Your task to perform on an android device: open a new tab in the chrome app Image 0: 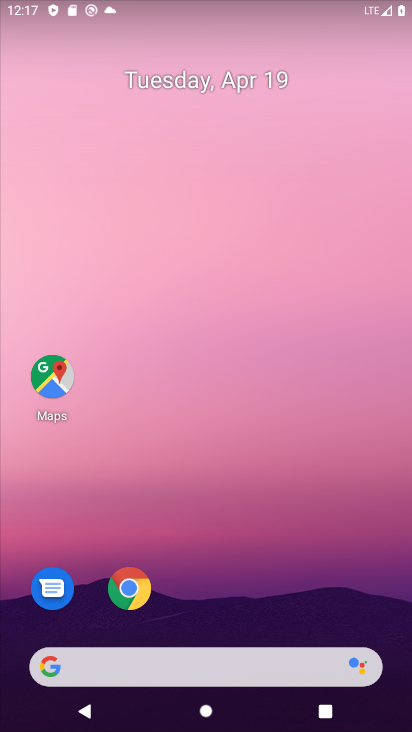
Step 0: drag from (378, 587) to (369, 78)
Your task to perform on an android device: open a new tab in the chrome app Image 1: 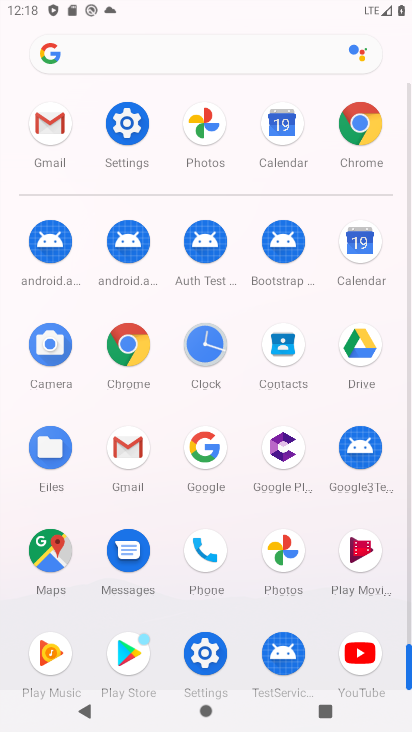
Step 1: click (361, 134)
Your task to perform on an android device: open a new tab in the chrome app Image 2: 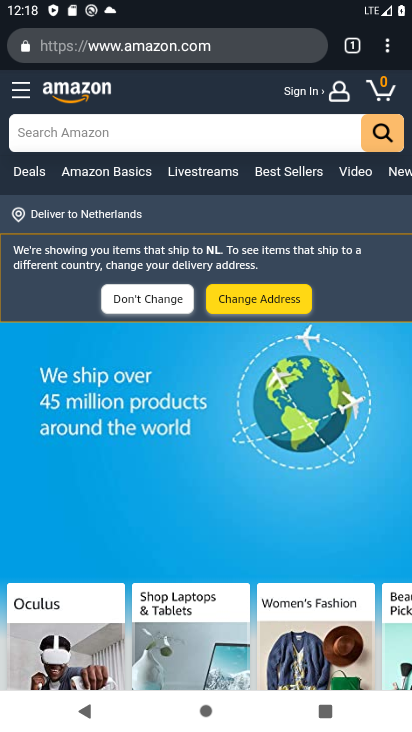
Step 2: click (387, 45)
Your task to perform on an android device: open a new tab in the chrome app Image 3: 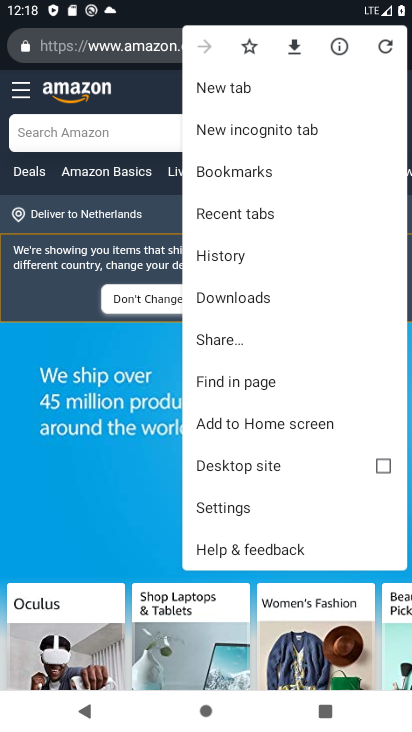
Step 3: click (228, 89)
Your task to perform on an android device: open a new tab in the chrome app Image 4: 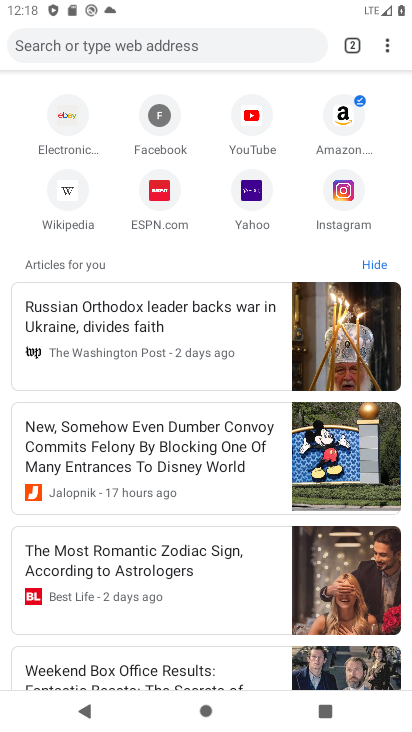
Step 4: task complete